Your task to perform on an android device: turn off notifications settings in the gmail app Image 0: 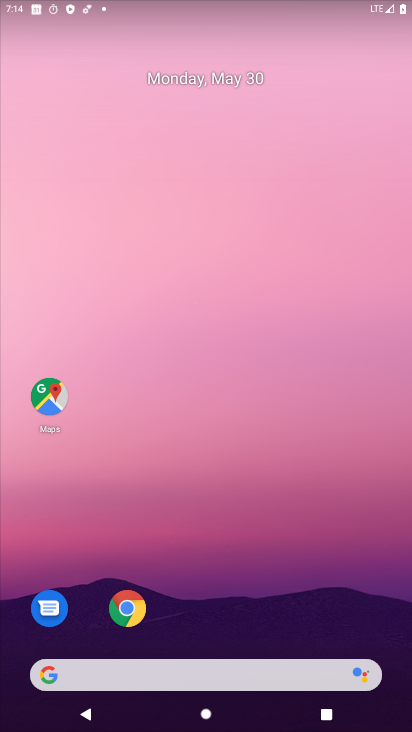
Step 0: drag from (189, 605) to (342, 291)
Your task to perform on an android device: turn off notifications settings in the gmail app Image 1: 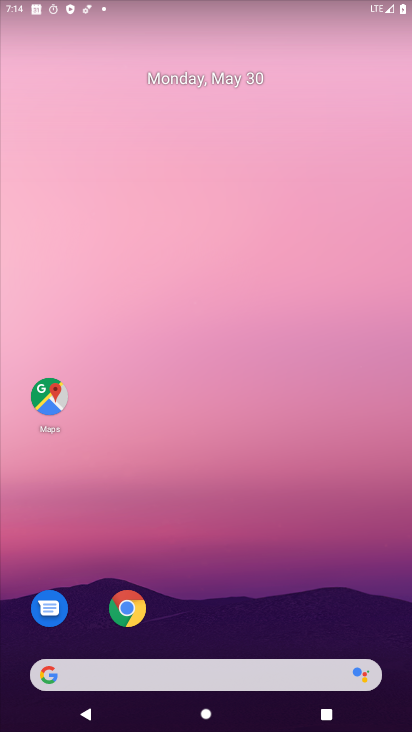
Step 1: drag from (227, 624) to (356, 216)
Your task to perform on an android device: turn off notifications settings in the gmail app Image 2: 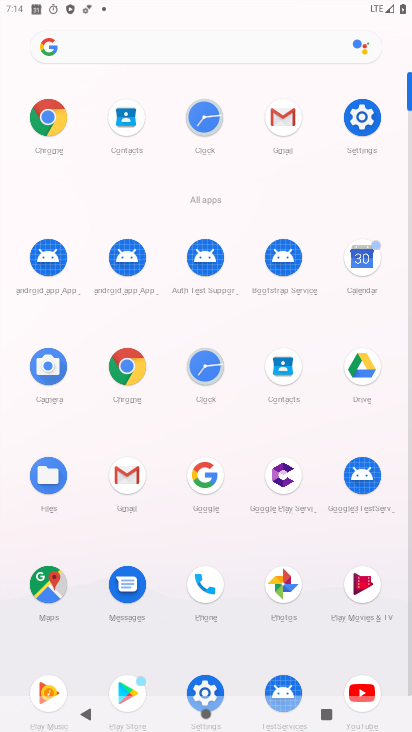
Step 2: click (284, 115)
Your task to perform on an android device: turn off notifications settings in the gmail app Image 3: 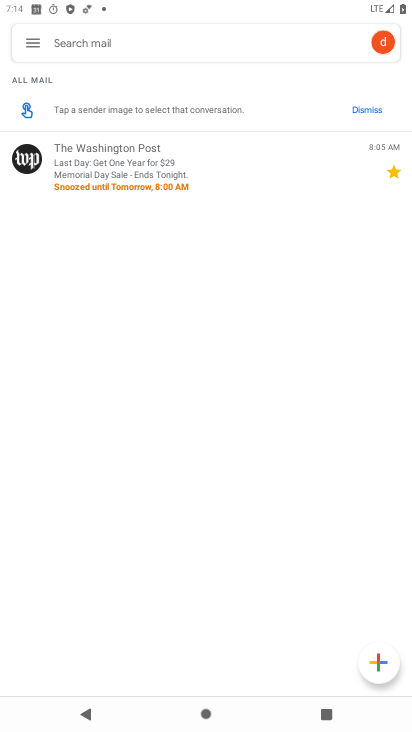
Step 3: click (36, 47)
Your task to perform on an android device: turn off notifications settings in the gmail app Image 4: 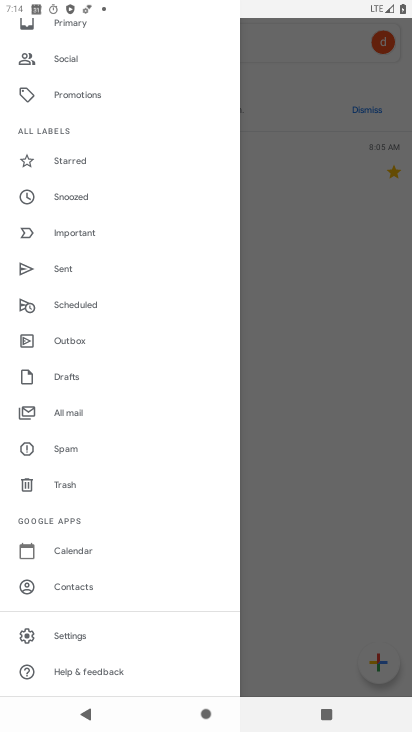
Step 4: click (77, 638)
Your task to perform on an android device: turn off notifications settings in the gmail app Image 5: 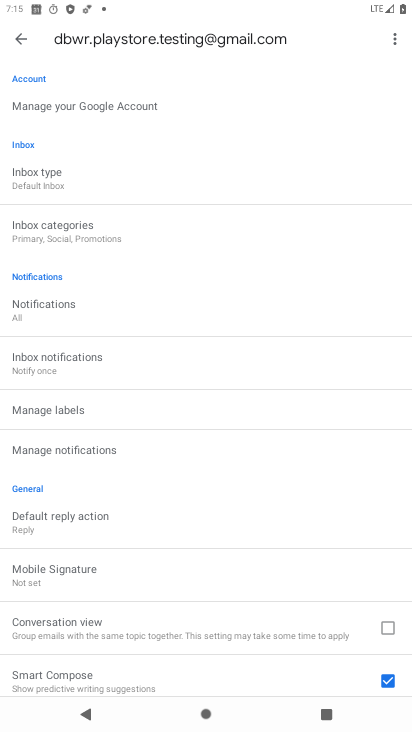
Step 5: click (66, 456)
Your task to perform on an android device: turn off notifications settings in the gmail app Image 6: 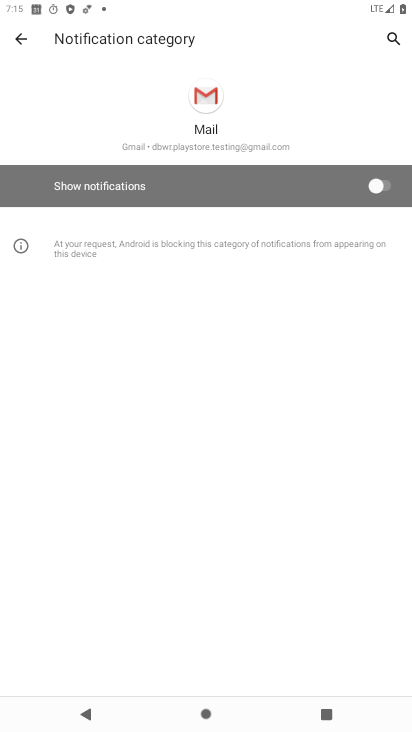
Step 6: click (363, 185)
Your task to perform on an android device: turn off notifications settings in the gmail app Image 7: 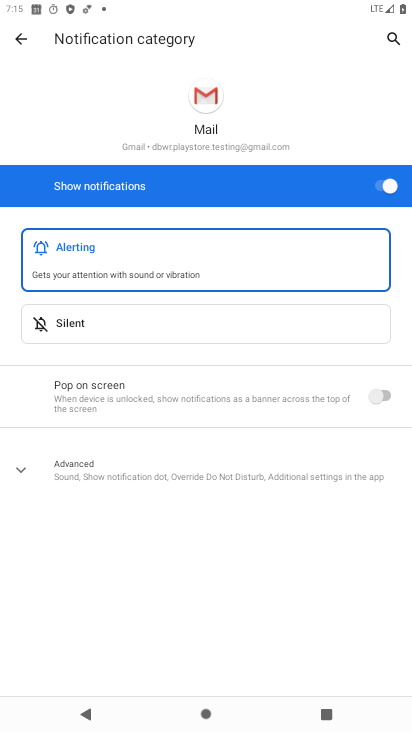
Step 7: click (390, 181)
Your task to perform on an android device: turn off notifications settings in the gmail app Image 8: 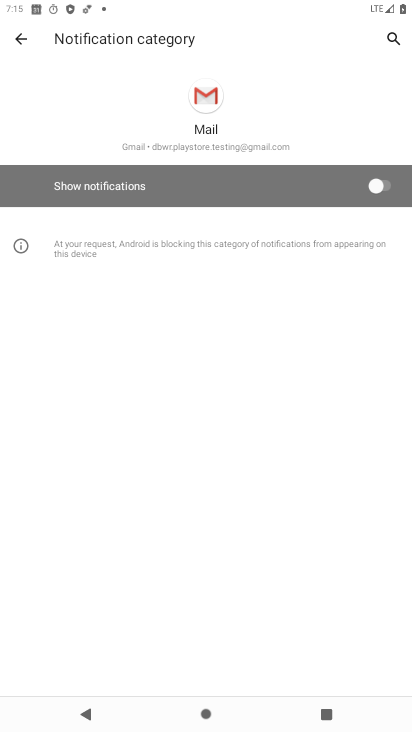
Step 8: task complete